Your task to perform on an android device: open a bookmark in the chrome app Image 0: 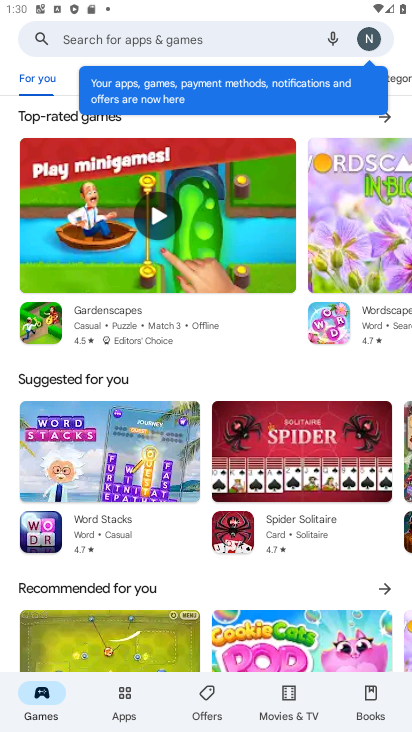
Step 0: press home button
Your task to perform on an android device: open a bookmark in the chrome app Image 1: 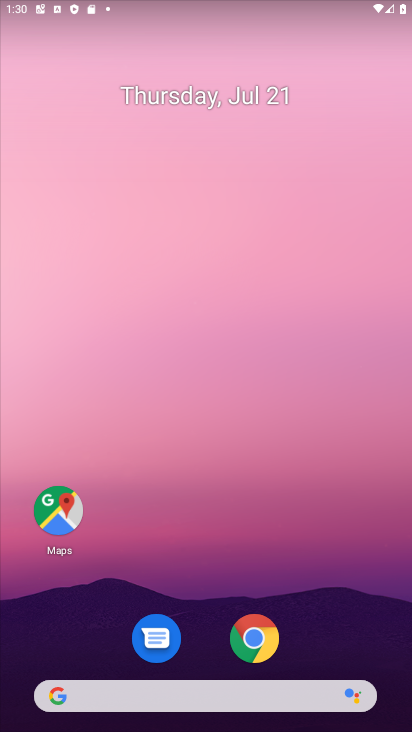
Step 1: click (262, 645)
Your task to perform on an android device: open a bookmark in the chrome app Image 2: 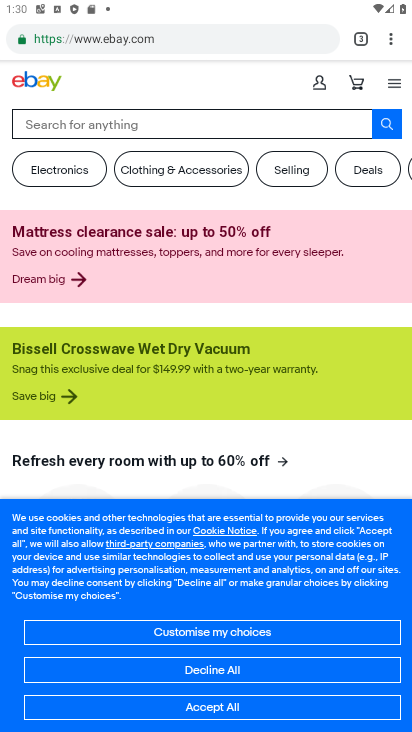
Step 2: click (387, 37)
Your task to perform on an android device: open a bookmark in the chrome app Image 3: 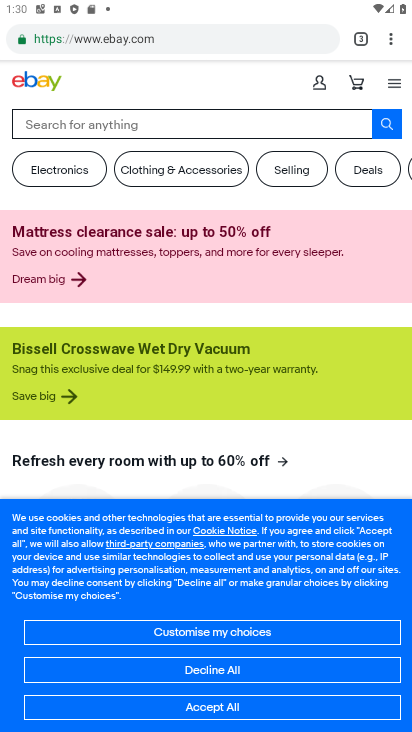
Step 3: click (387, 37)
Your task to perform on an android device: open a bookmark in the chrome app Image 4: 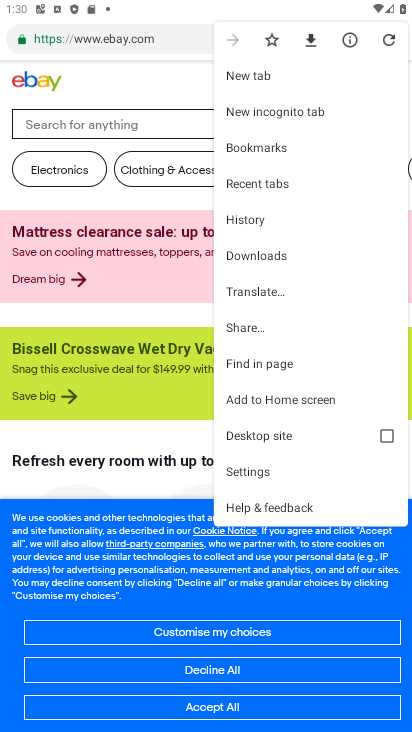
Step 4: click (305, 149)
Your task to perform on an android device: open a bookmark in the chrome app Image 5: 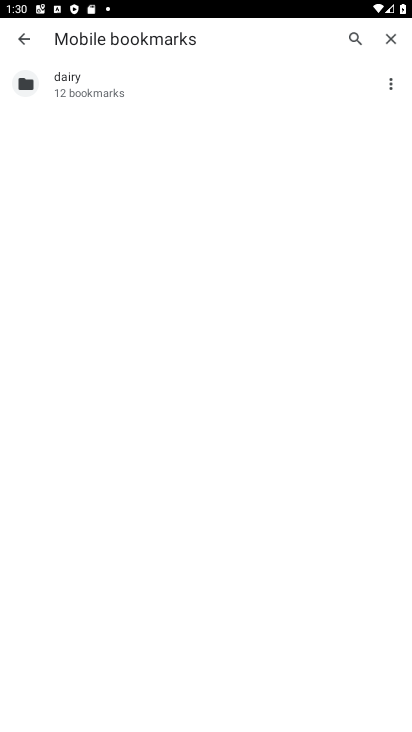
Step 5: click (394, 88)
Your task to perform on an android device: open a bookmark in the chrome app Image 6: 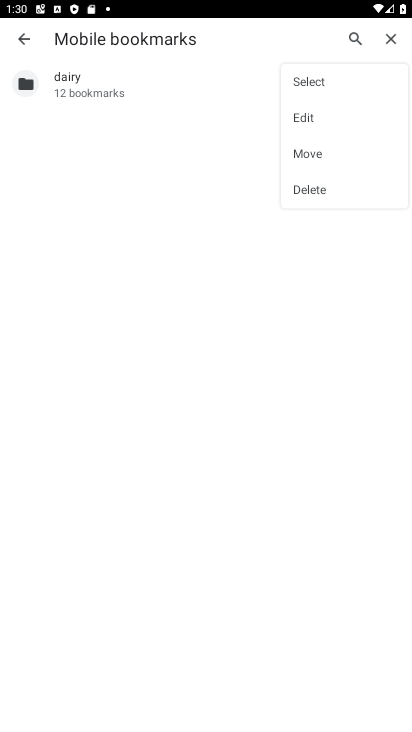
Step 6: click (223, 90)
Your task to perform on an android device: open a bookmark in the chrome app Image 7: 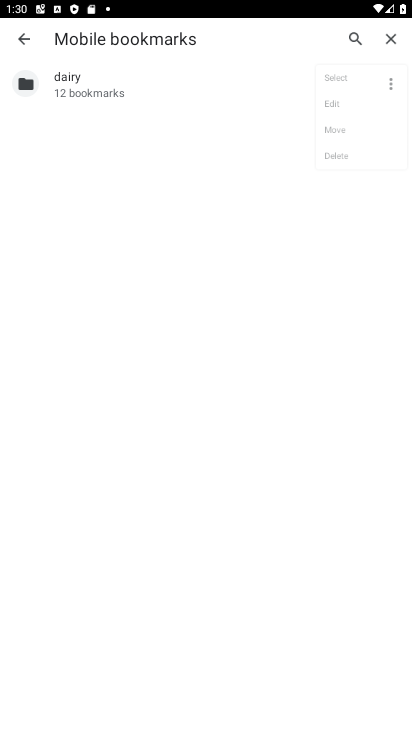
Step 7: click (223, 90)
Your task to perform on an android device: open a bookmark in the chrome app Image 8: 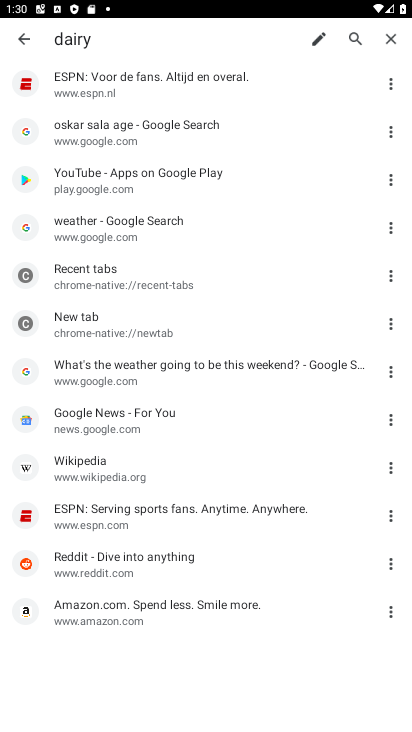
Step 8: click (202, 132)
Your task to perform on an android device: open a bookmark in the chrome app Image 9: 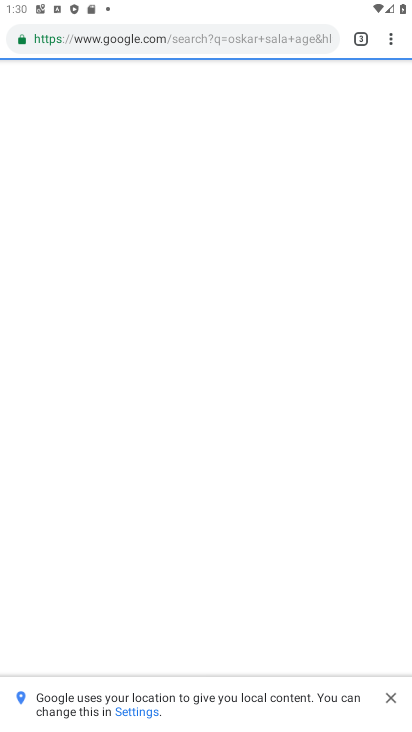
Step 9: task complete